Your task to perform on an android device: What's the weather today? Image 0: 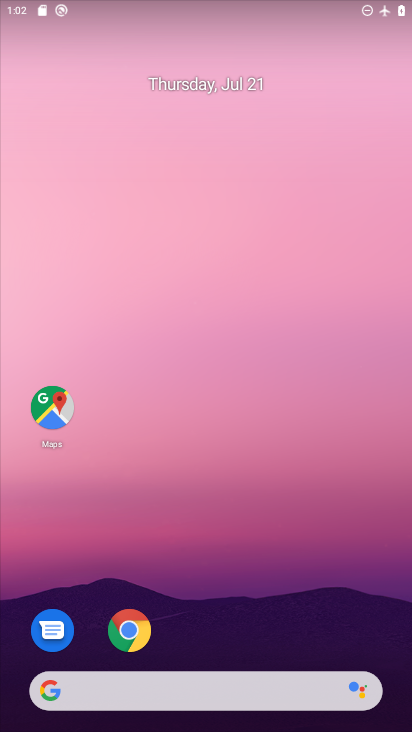
Step 0: drag from (74, 223) to (410, 178)
Your task to perform on an android device: What's the weather today? Image 1: 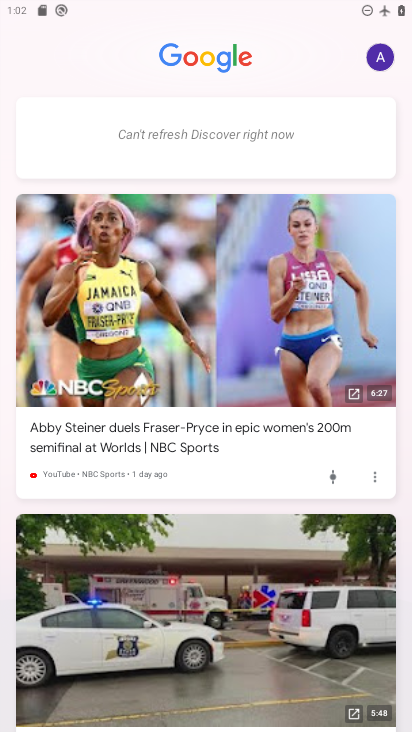
Step 1: task complete